Your task to perform on an android device: turn off improve location accuracy Image 0: 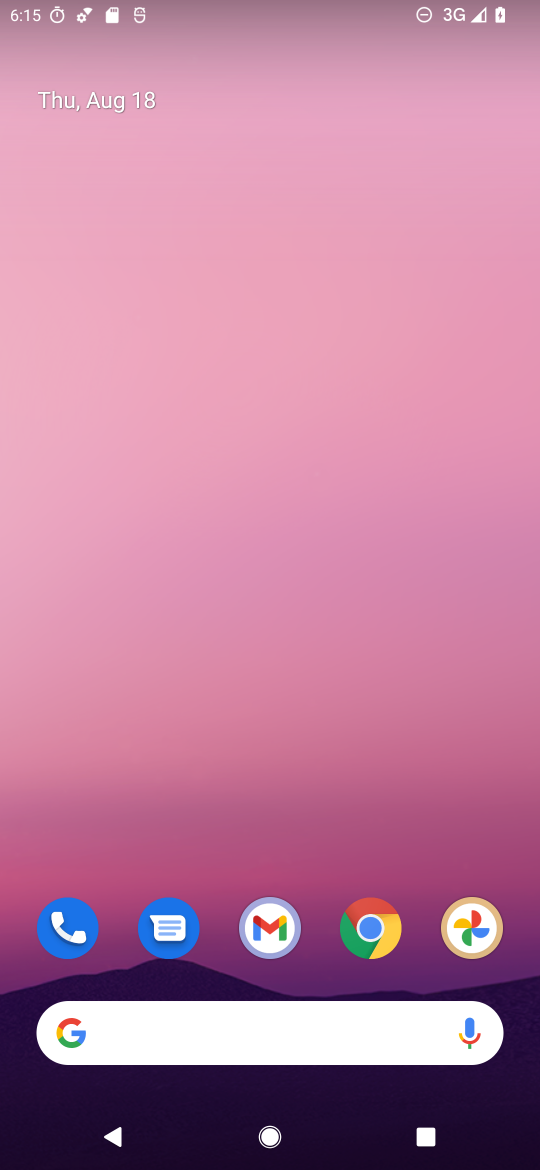
Step 0: drag from (340, 757) to (402, 132)
Your task to perform on an android device: turn off improve location accuracy Image 1: 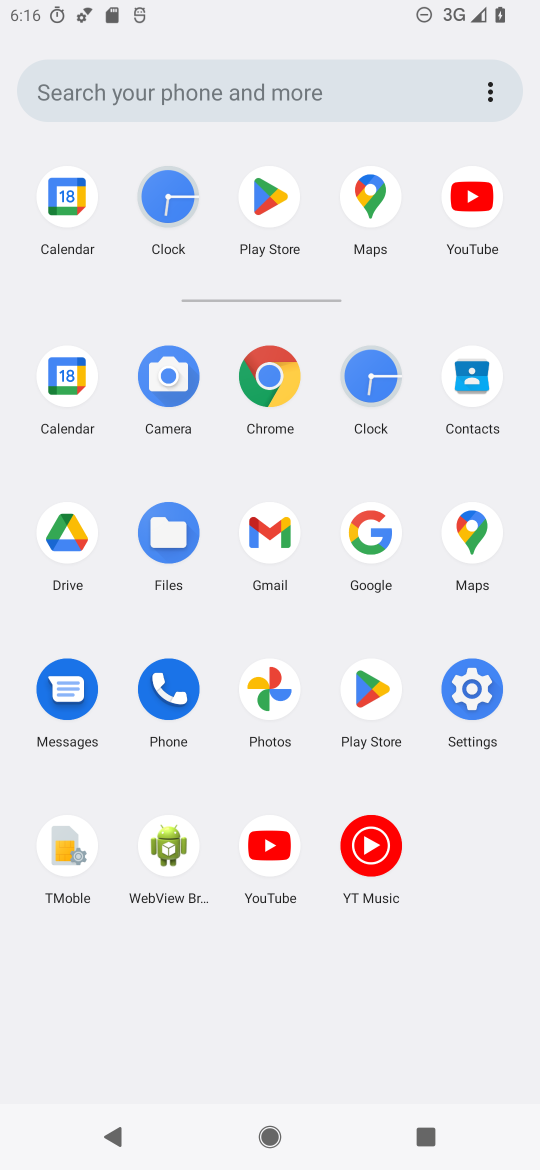
Step 1: click (470, 684)
Your task to perform on an android device: turn off improve location accuracy Image 2: 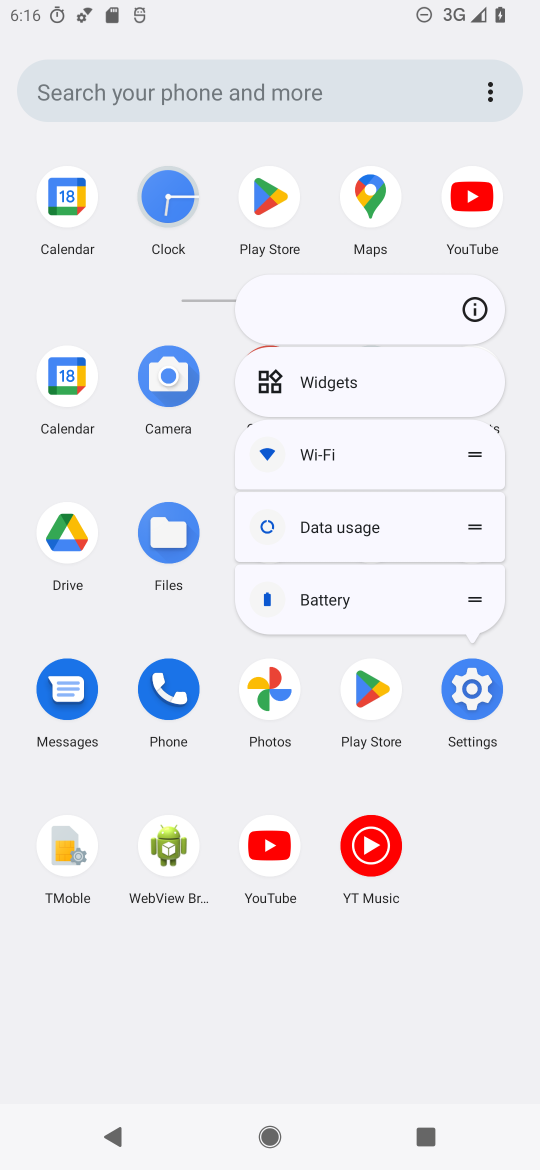
Step 2: click (458, 696)
Your task to perform on an android device: turn off improve location accuracy Image 3: 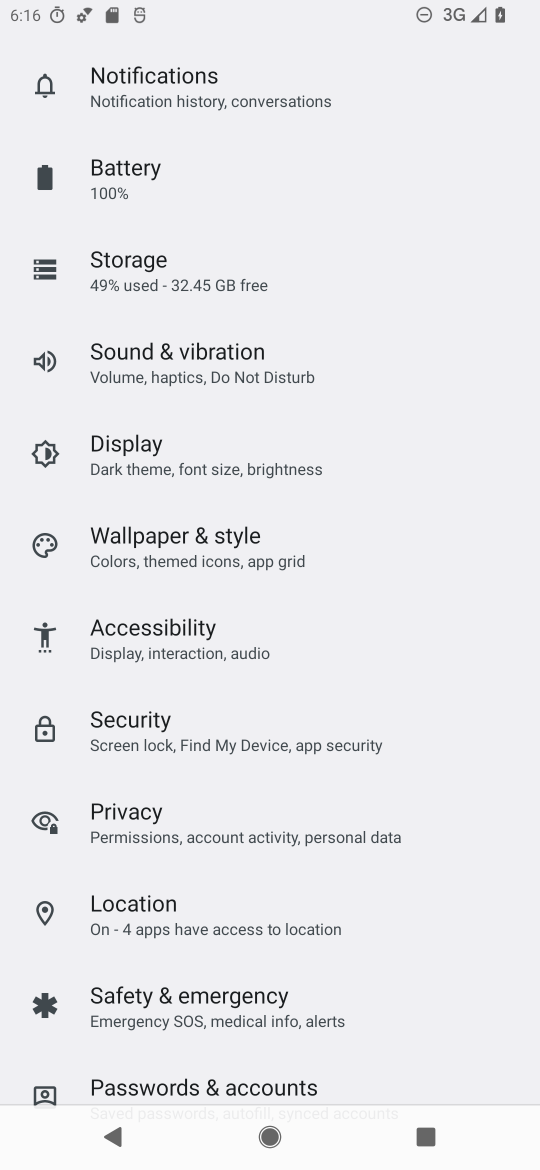
Step 3: click (223, 912)
Your task to perform on an android device: turn off improve location accuracy Image 4: 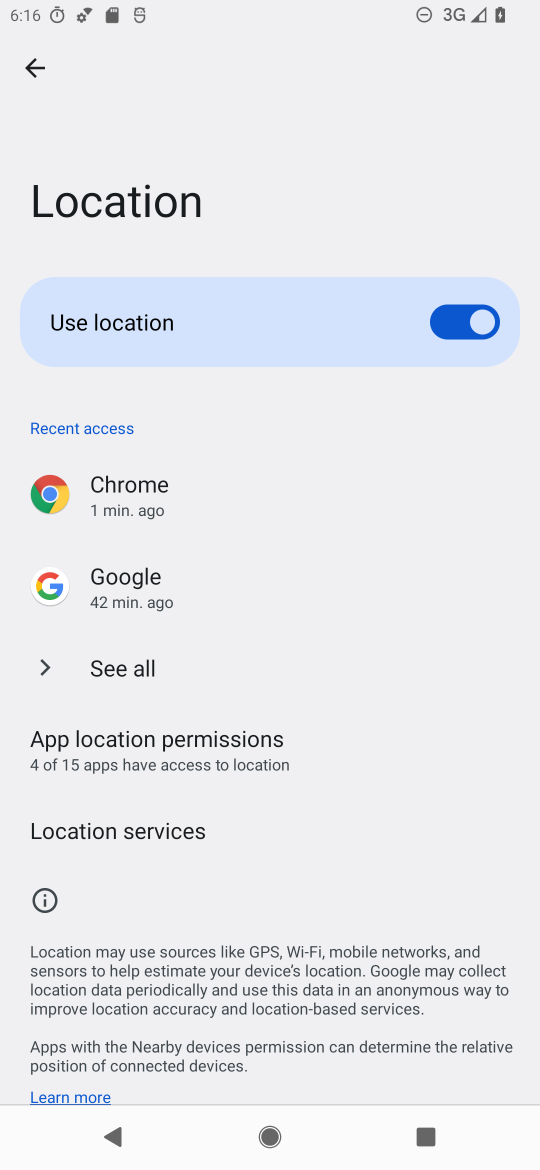
Step 4: click (188, 846)
Your task to perform on an android device: turn off improve location accuracy Image 5: 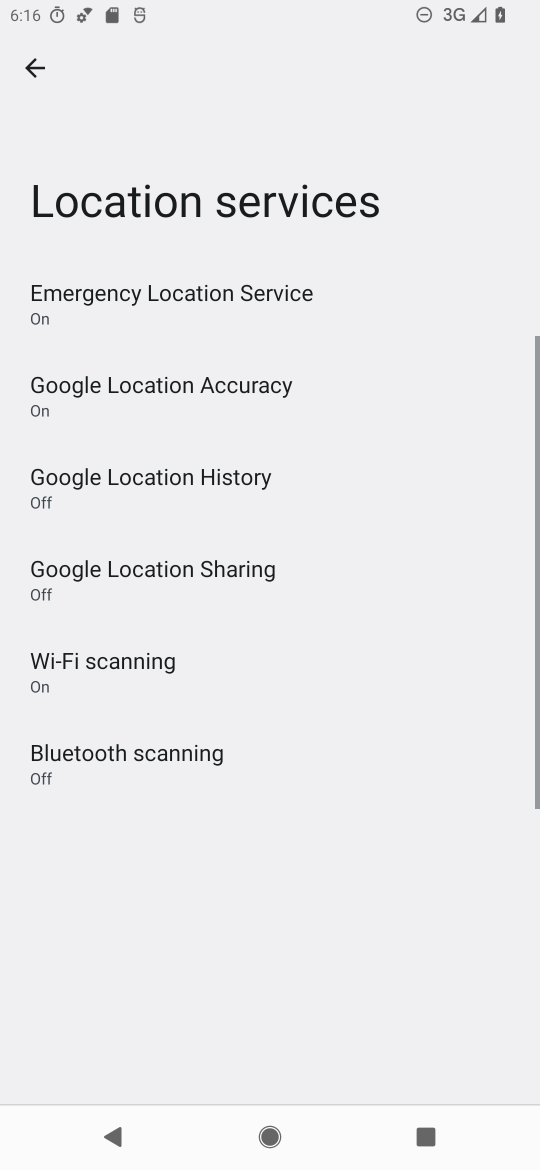
Step 5: click (241, 383)
Your task to perform on an android device: turn off improve location accuracy Image 6: 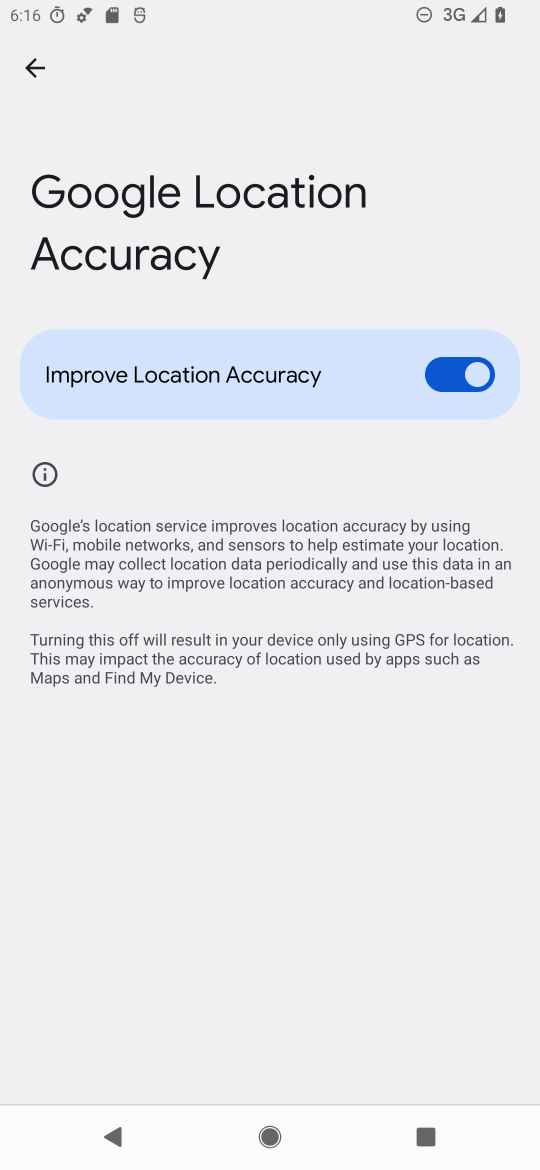
Step 6: click (451, 376)
Your task to perform on an android device: turn off improve location accuracy Image 7: 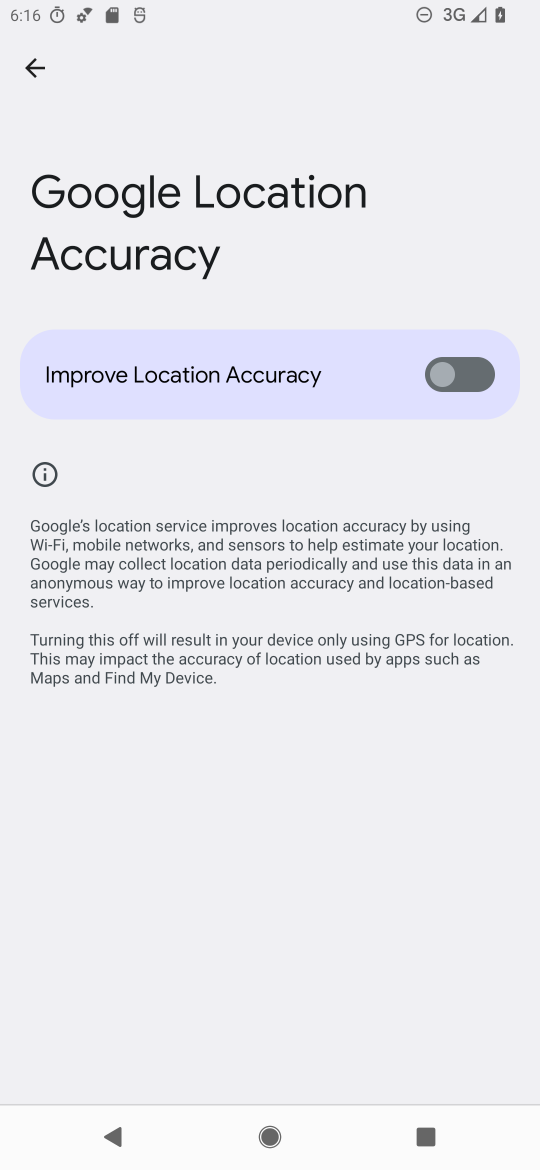
Step 7: task complete